Your task to perform on an android device: delete a single message in the gmail app Image 0: 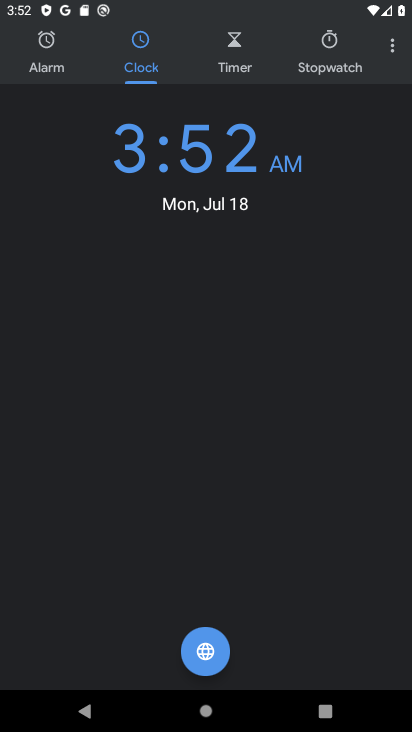
Step 0: press home button
Your task to perform on an android device: delete a single message in the gmail app Image 1: 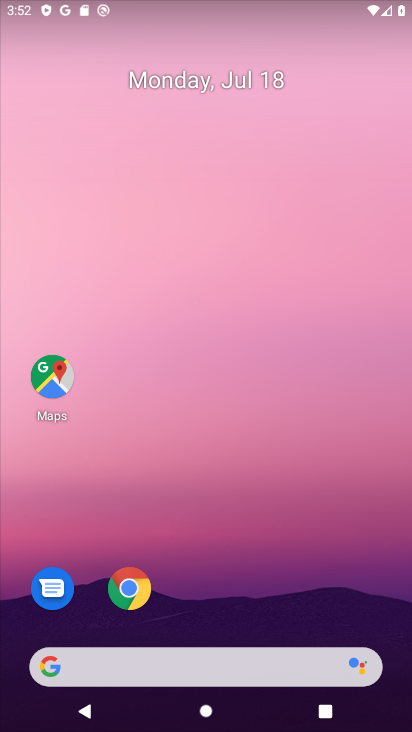
Step 1: drag from (209, 629) to (282, 205)
Your task to perform on an android device: delete a single message in the gmail app Image 2: 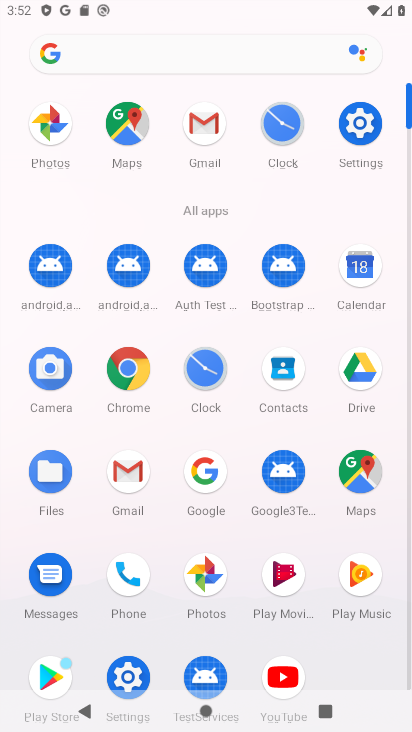
Step 2: click (160, 466)
Your task to perform on an android device: delete a single message in the gmail app Image 3: 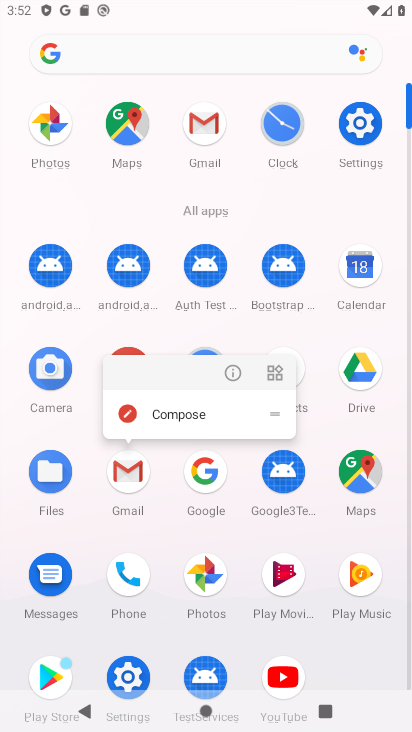
Step 3: click (146, 471)
Your task to perform on an android device: delete a single message in the gmail app Image 4: 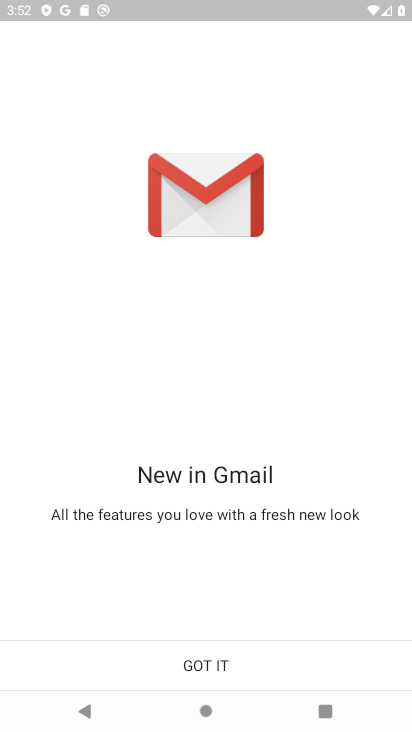
Step 4: click (228, 658)
Your task to perform on an android device: delete a single message in the gmail app Image 5: 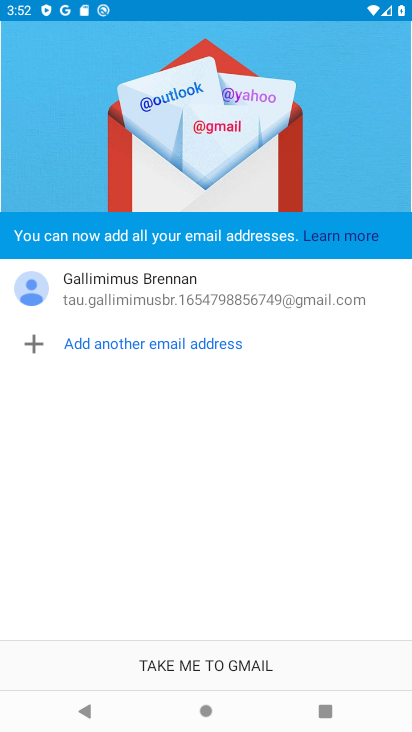
Step 5: click (227, 657)
Your task to perform on an android device: delete a single message in the gmail app Image 6: 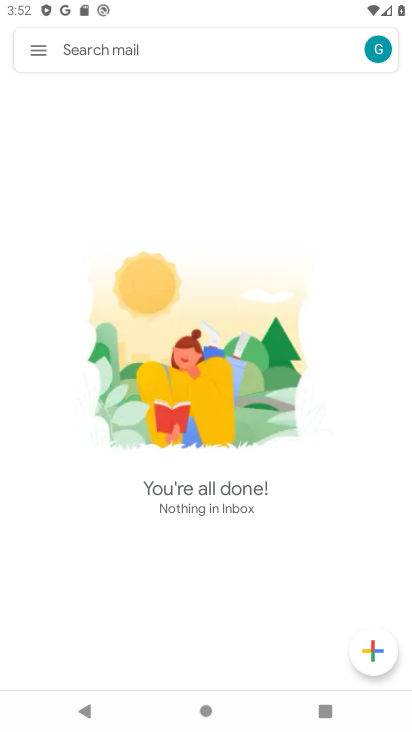
Step 6: click (49, 46)
Your task to perform on an android device: delete a single message in the gmail app Image 7: 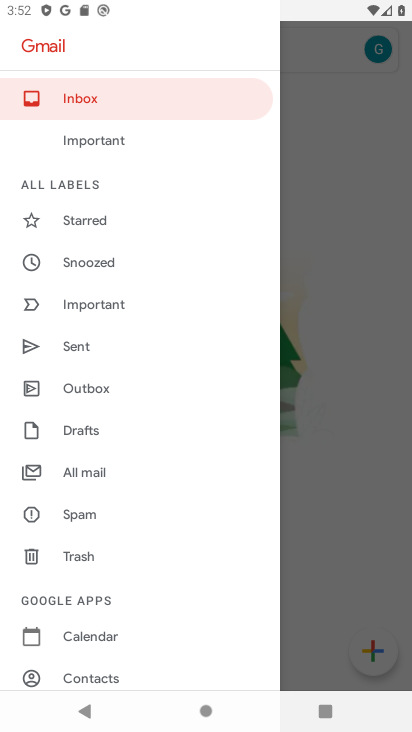
Step 7: click (71, 494)
Your task to perform on an android device: delete a single message in the gmail app Image 8: 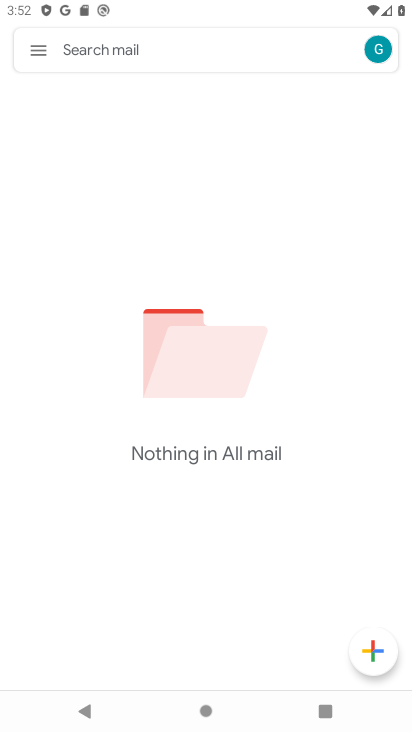
Step 8: task complete